Your task to perform on an android device: turn on notifications settings in the gmail app Image 0: 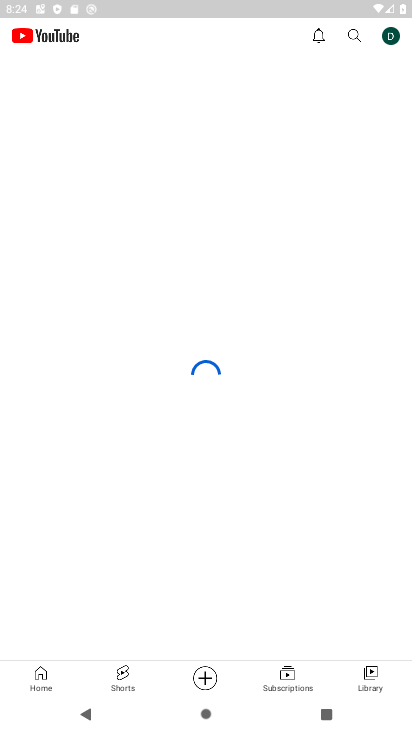
Step 0: drag from (189, 633) to (135, 448)
Your task to perform on an android device: turn on notifications settings in the gmail app Image 1: 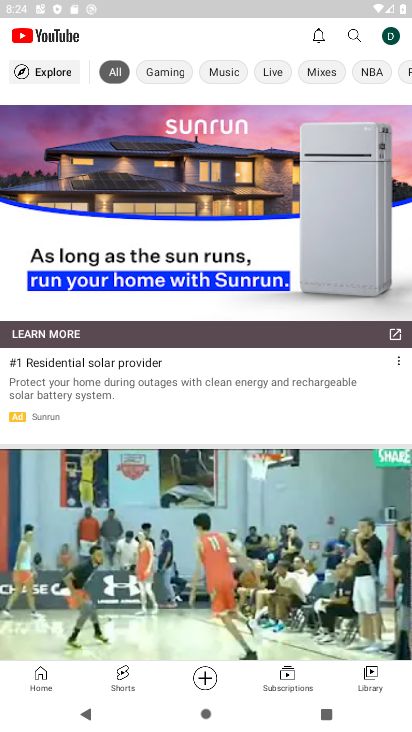
Step 1: press back button
Your task to perform on an android device: turn on notifications settings in the gmail app Image 2: 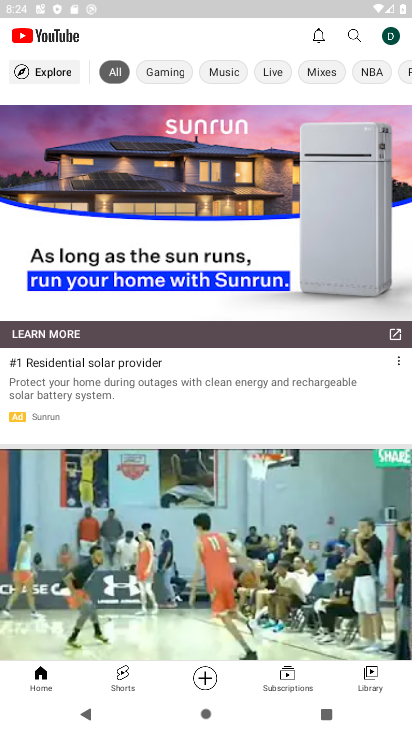
Step 2: press back button
Your task to perform on an android device: turn on notifications settings in the gmail app Image 3: 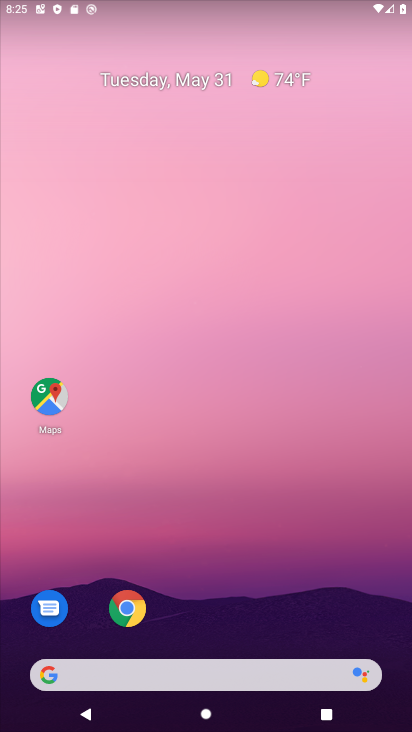
Step 3: drag from (214, 644) to (214, 150)
Your task to perform on an android device: turn on notifications settings in the gmail app Image 4: 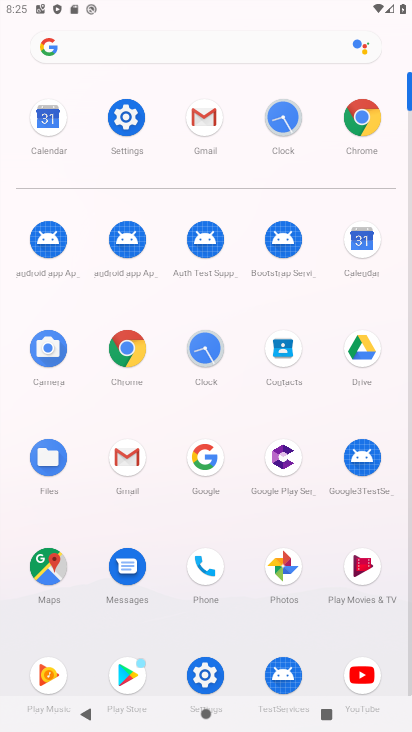
Step 4: click (118, 483)
Your task to perform on an android device: turn on notifications settings in the gmail app Image 5: 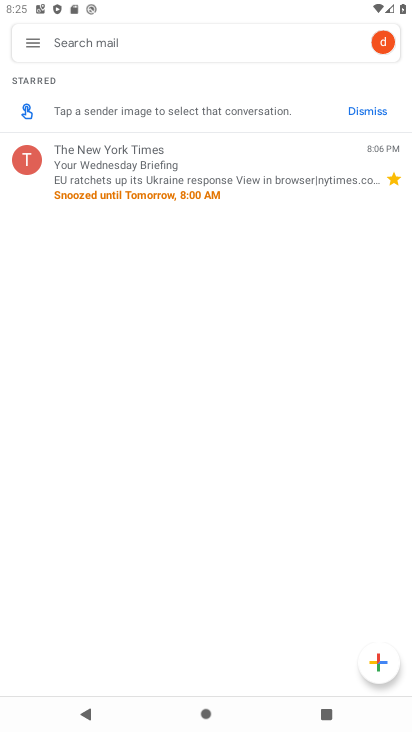
Step 5: click (37, 45)
Your task to perform on an android device: turn on notifications settings in the gmail app Image 6: 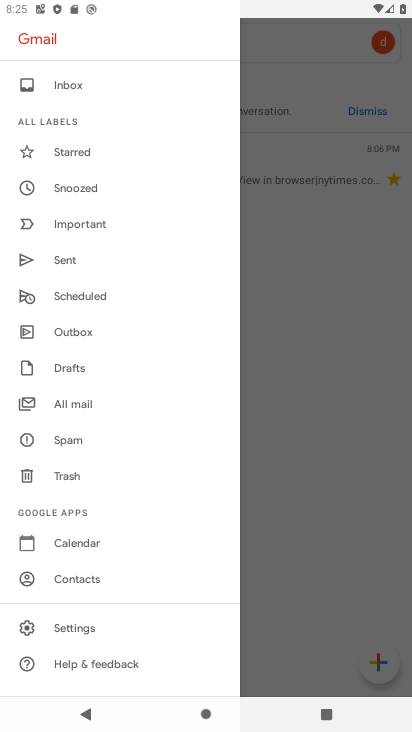
Step 6: click (76, 614)
Your task to perform on an android device: turn on notifications settings in the gmail app Image 7: 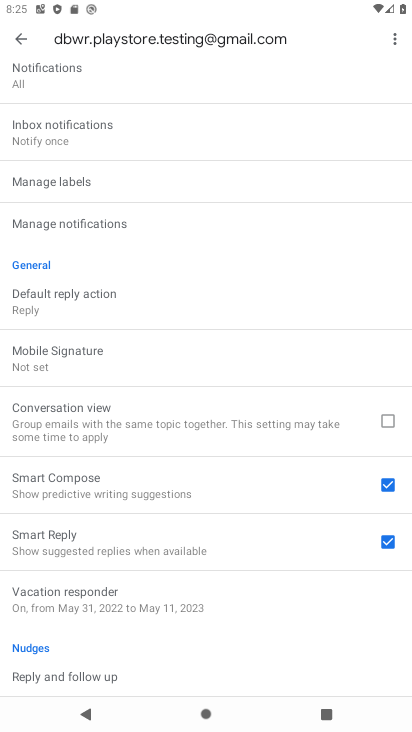
Step 7: click (16, 43)
Your task to perform on an android device: turn on notifications settings in the gmail app Image 8: 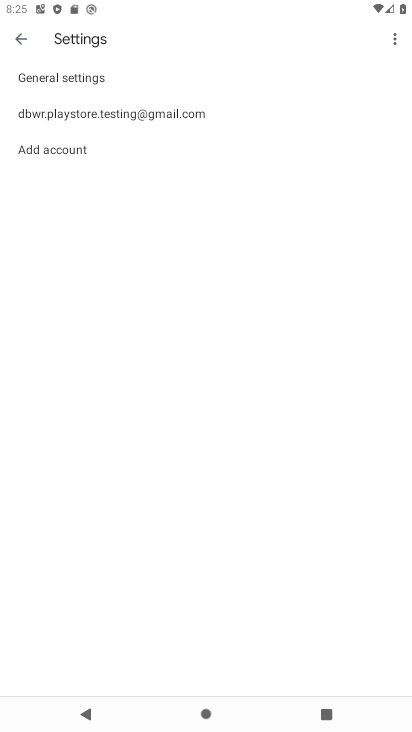
Step 8: click (56, 87)
Your task to perform on an android device: turn on notifications settings in the gmail app Image 9: 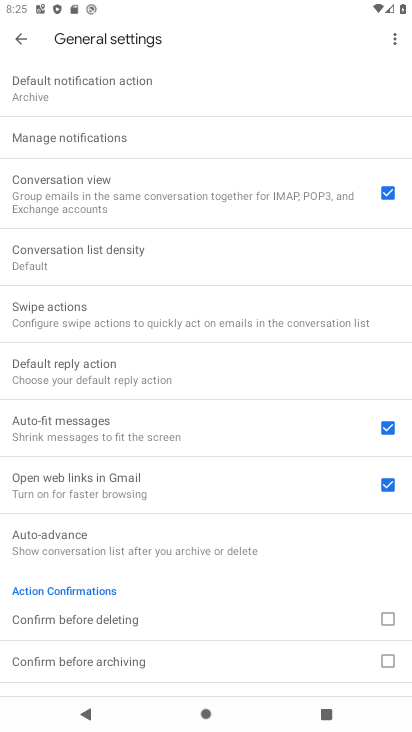
Step 9: click (33, 145)
Your task to perform on an android device: turn on notifications settings in the gmail app Image 10: 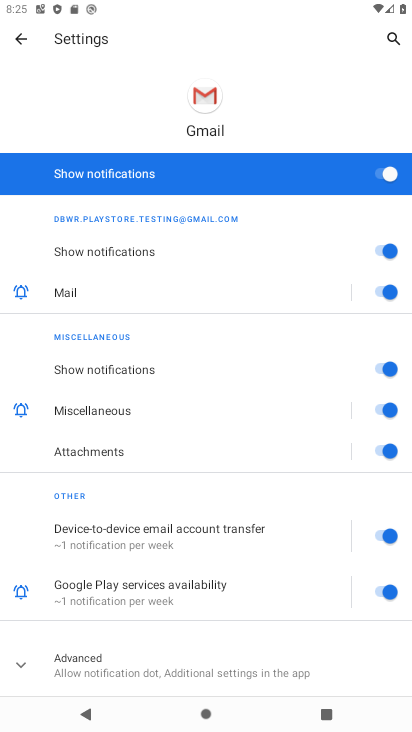
Step 10: task complete